Your task to perform on an android device: Empty the shopping cart on amazon. Image 0: 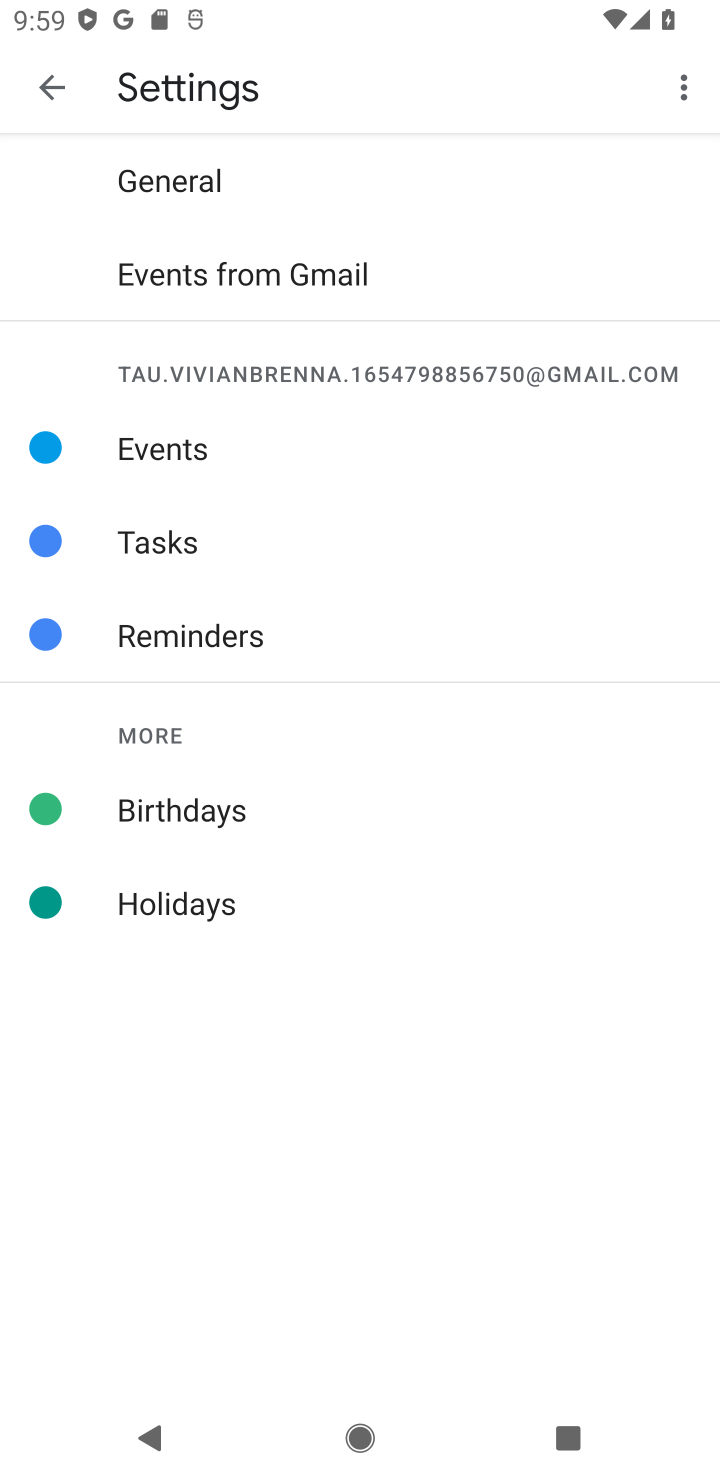
Step 0: press home button
Your task to perform on an android device: Empty the shopping cart on amazon. Image 1: 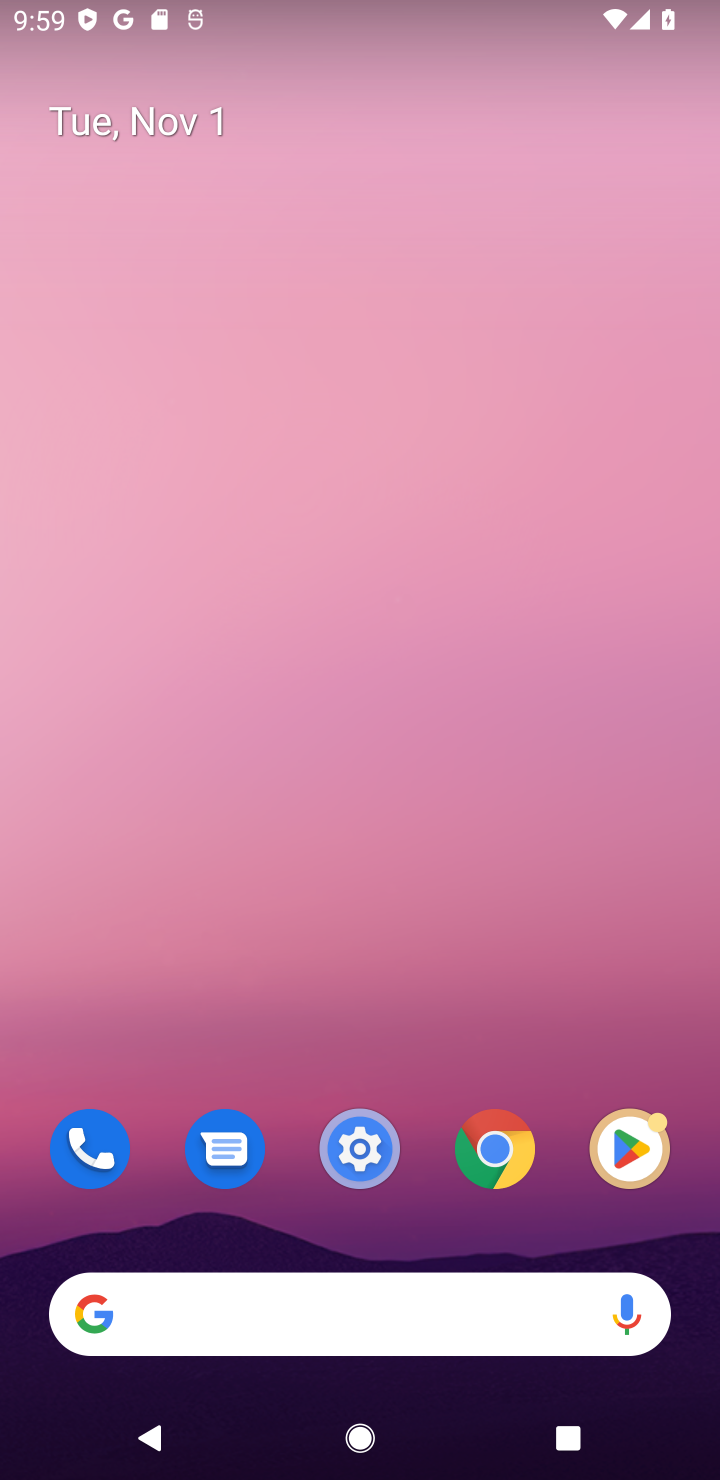
Step 1: click (127, 1304)
Your task to perform on an android device: Empty the shopping cart on amazon. Image 2: 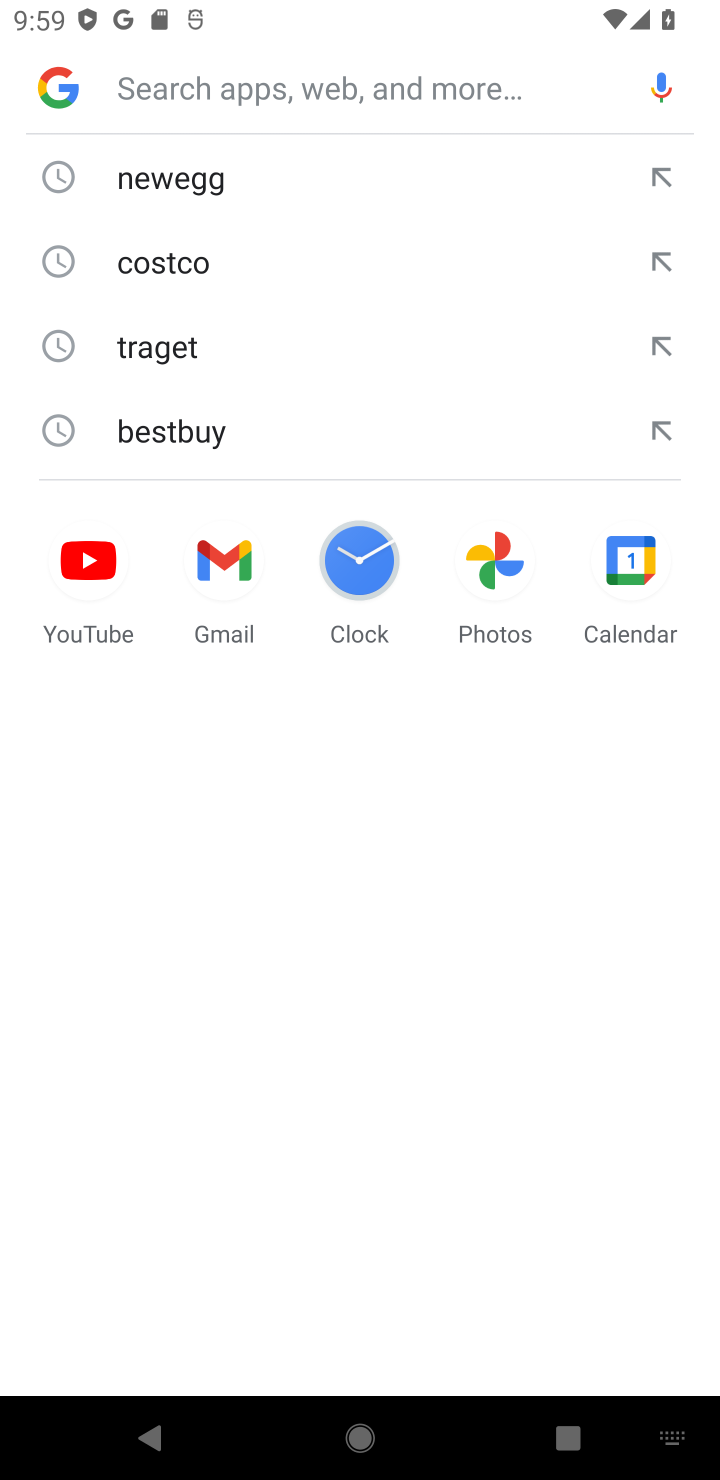
Step 2: type "amazon"
Your task to perform on an android device: Empty the shopping cart on amazon. Image 3: 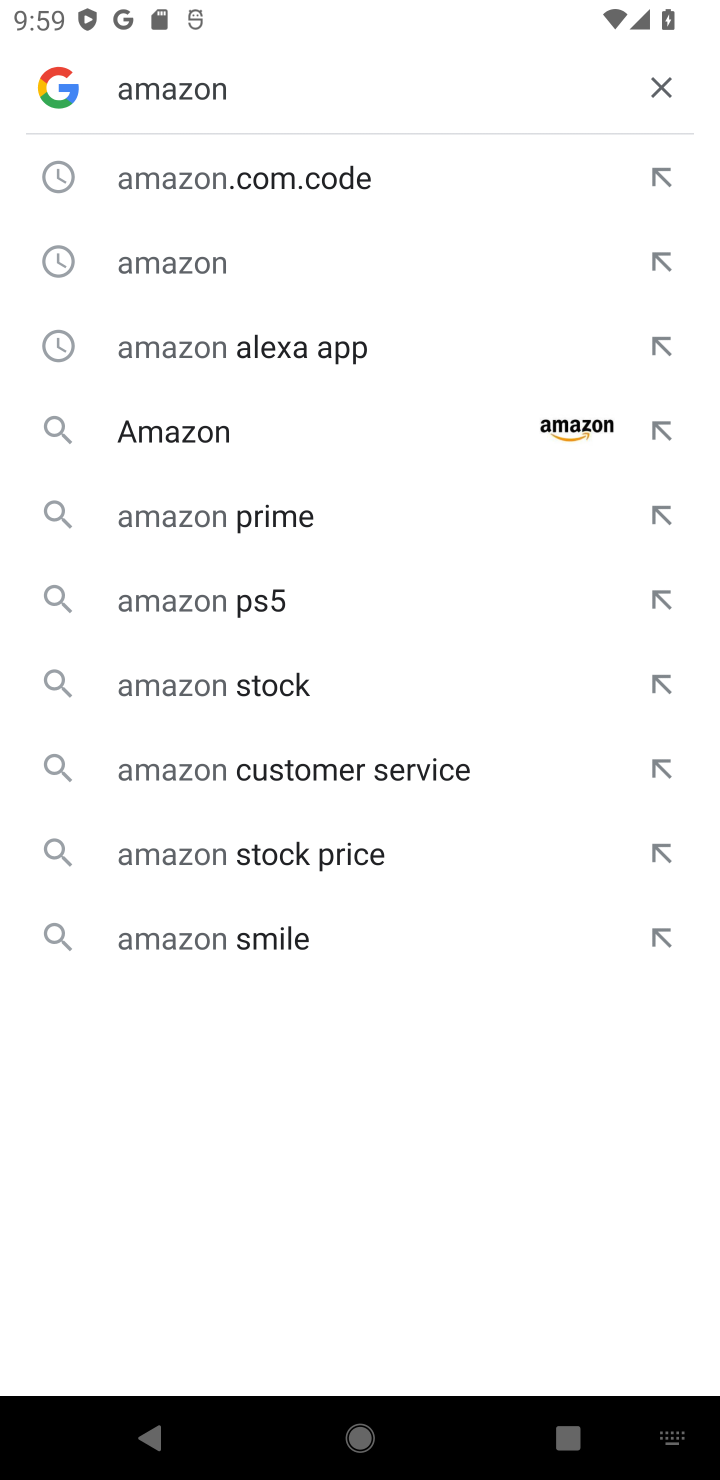
Step 3: press enter
Your task to perform on an android device: Empty the shopping cart on amazon. Image 4: 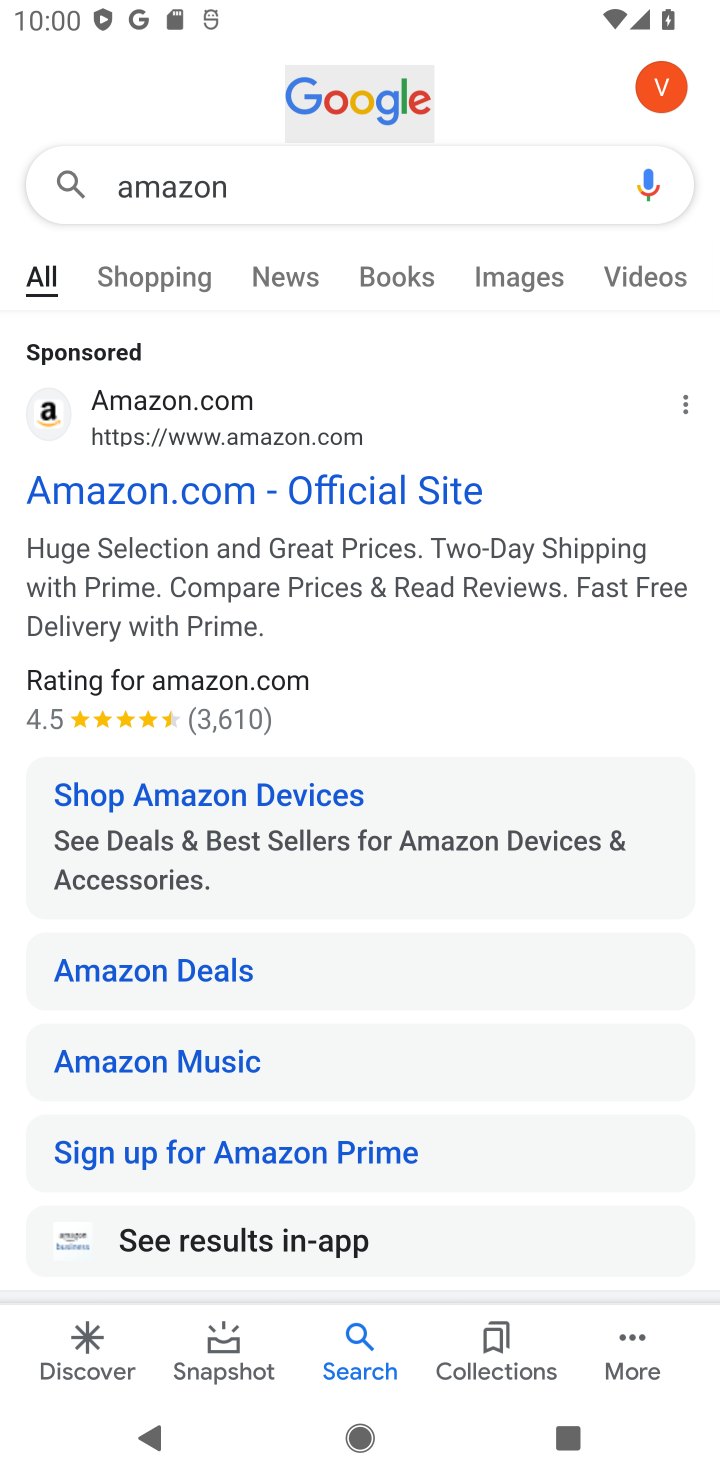
Step 4: click (171, 483)
Your task to perform on an android device: Empty the shopping cart on amazon. Image 5: 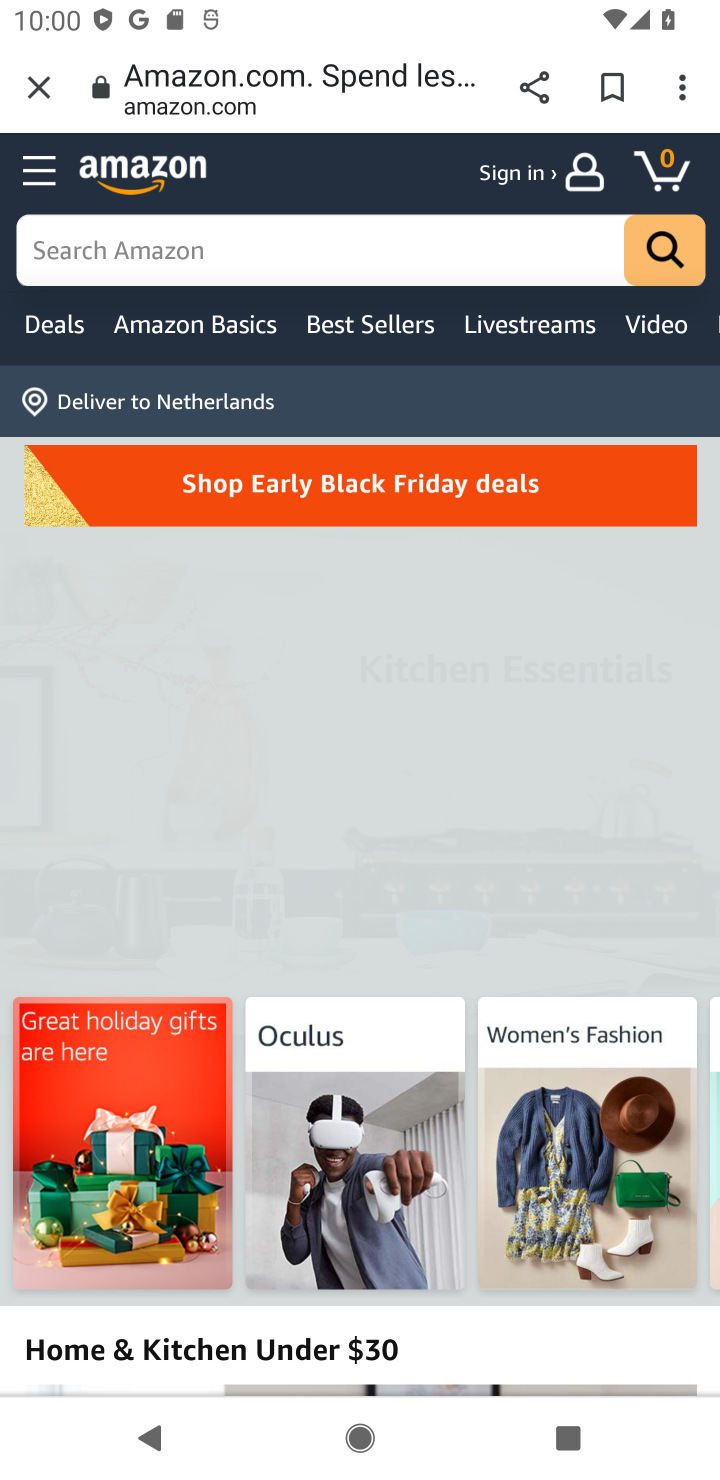
Step 5: click (680, 173)
Your task to perform on an android device: Empty the shopping cart on amazon. Image 6: 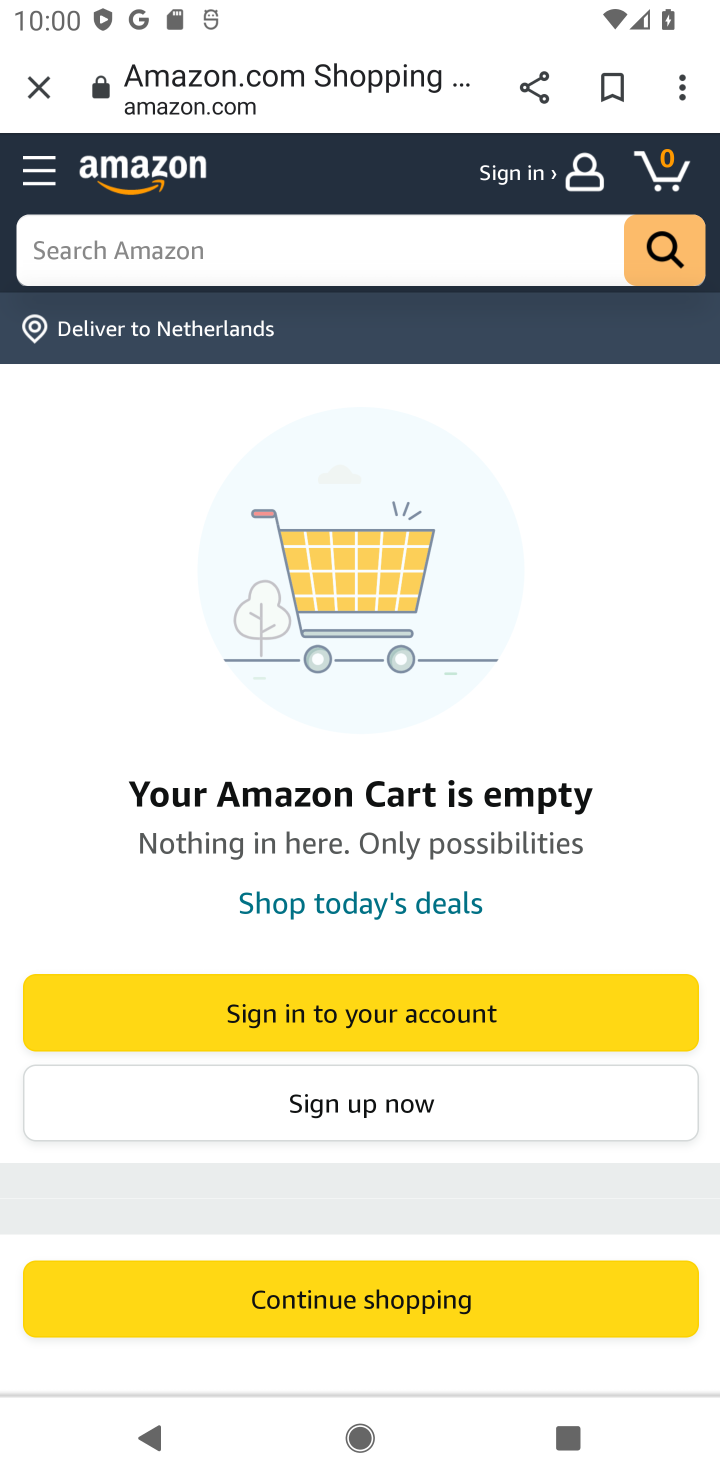
Step 6: task complete